Your task to perform on an android device: turn off javascript in the chrome app Image 0: 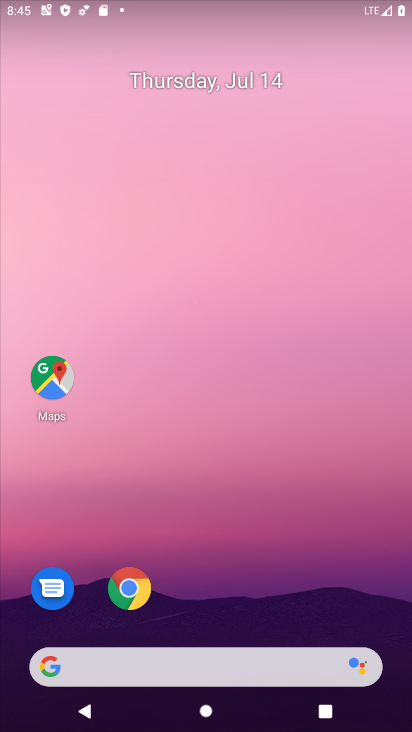
Step 0: drag from (403, 642) to (329, 33)
Your task to perform on an android device: turn off javascript in the chrome app Image 1: 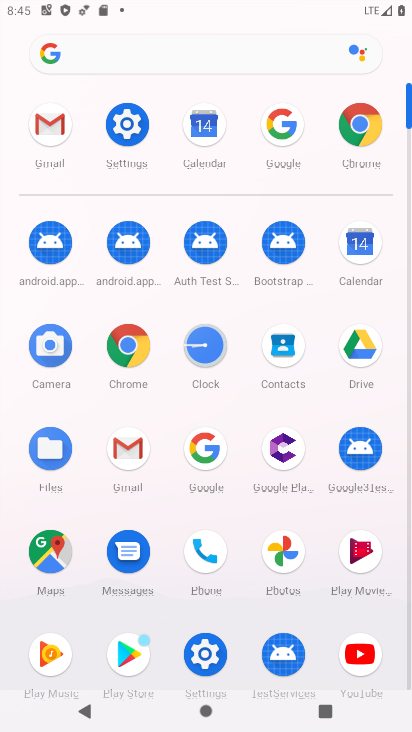
Step 1: click (363, 123)
Your task to perform on an android device: turn off javascript in the chrome app Image 2: 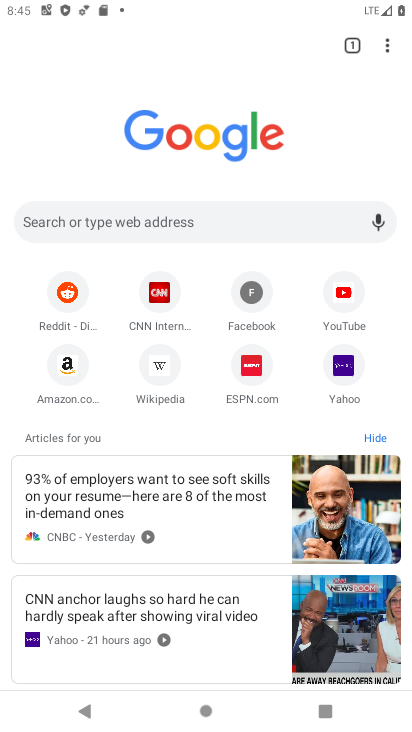
Step 2: click (386, 44)
Your task to perform on an android device: turn off javascript in the chrome app Image 3: 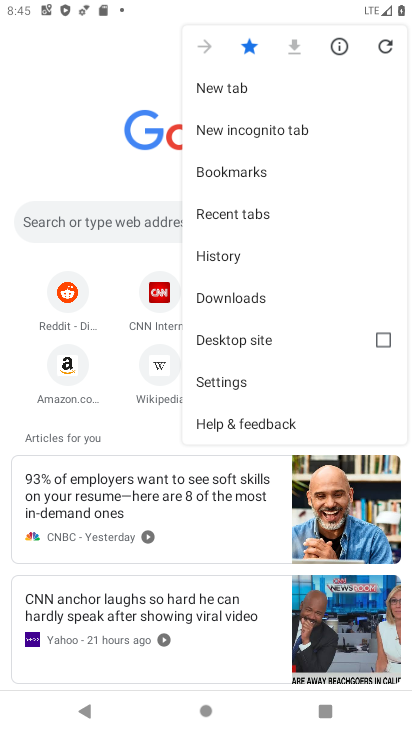
Step 3: click (241, 386)
Your task to perform on an android device: turn off javascript in the chrome app Image 4: 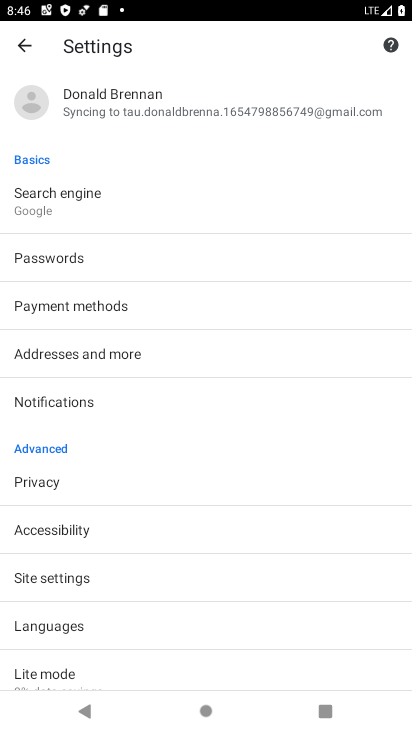
Step 4: click (89, 577)
Your task to perform on an android device: turn off javascript in the chrome app Image 5: 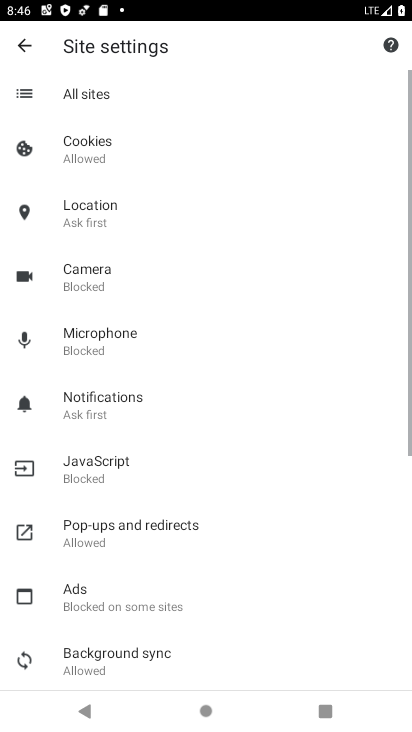
Step 5: click (128, 473)
Your task to perform on an android device: turn off javascript in the chrome app Image 6: 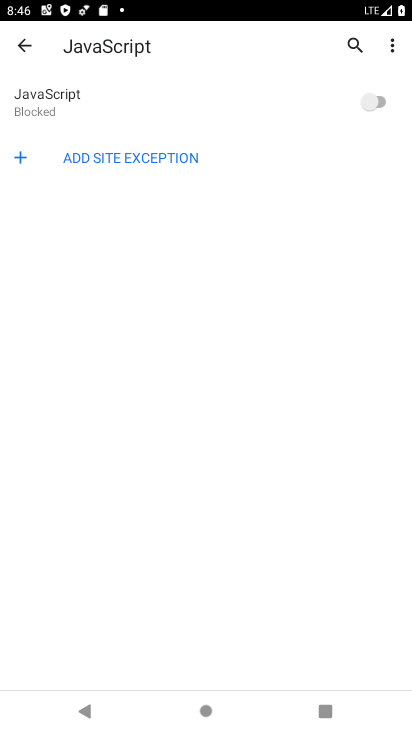
Step 6: task complete